Your task to perform on an android device: turn off airplane mode Image 0: 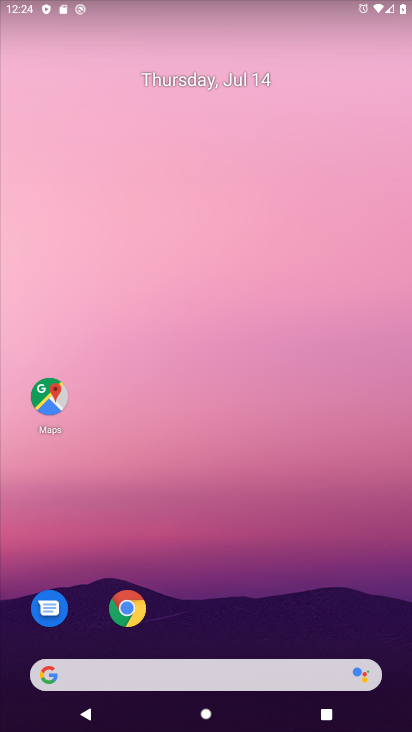
Step 0: drag from (244, 680) to (238, 230)
Your task to perform on an android device: turn off airplane mode Image 1: 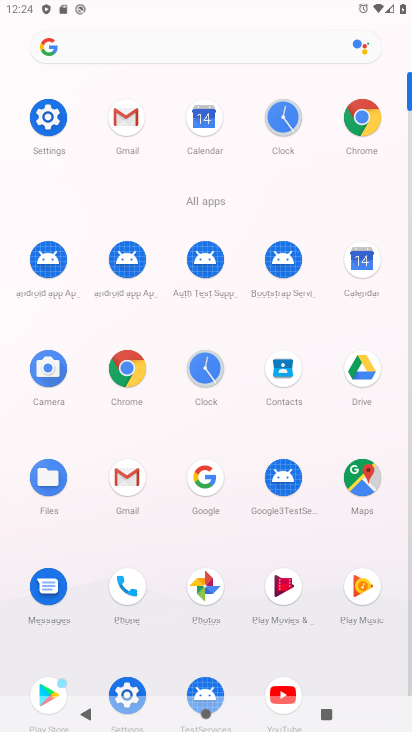
Step 1: click (48, 116)
Your task to perform on an android device: turn off airplane mode Image 2: 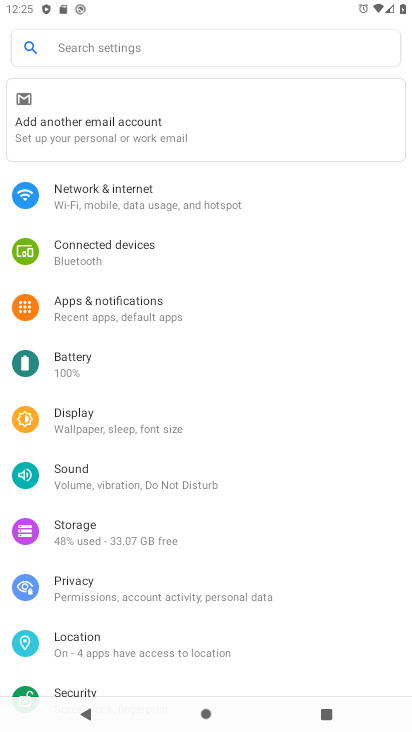
Step 2: click (76, 189)
Your task to perform on an android device: turn off airplane mode Image 3: 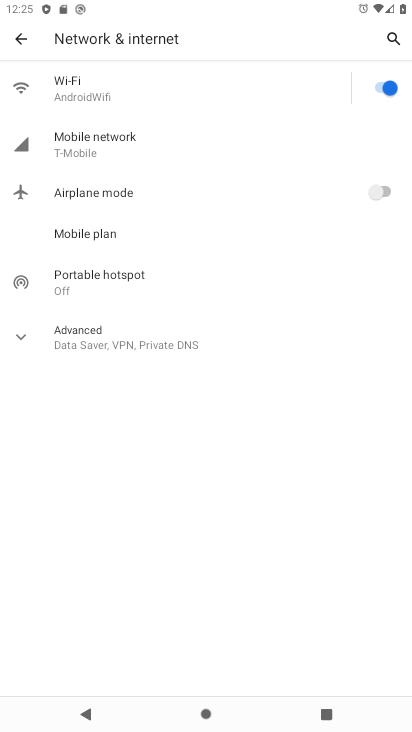
Step 3: task complete